Your task to perform on an android device: Go to wifi settings Image 0: 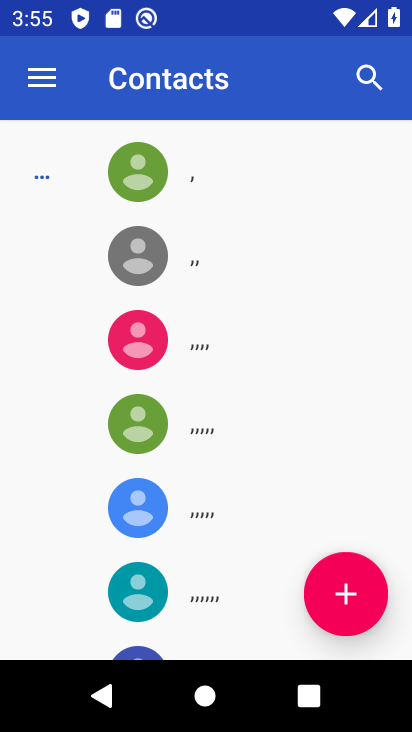
Step 0: press home button
Your task to perform on an android device: Go to wifi settings Image 1: 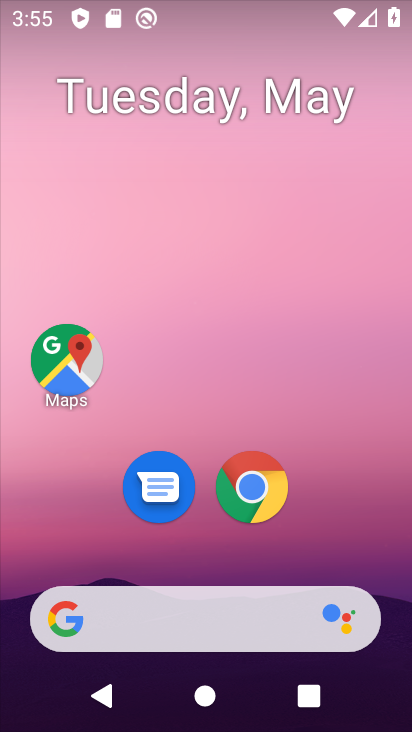
Step 1: drag from (339, 547) to (307, 38)
Your task to perform on an android device: Go to wifi settings Image 2: 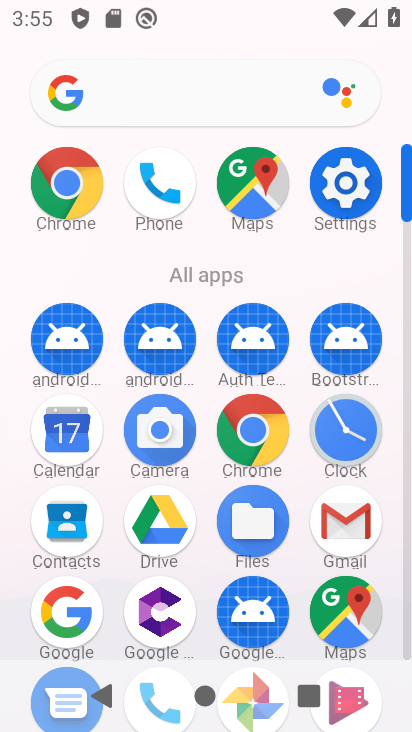
Step 2: click (335, 188)
Your task to perform on an android device: Go to wifi settings Image 3: 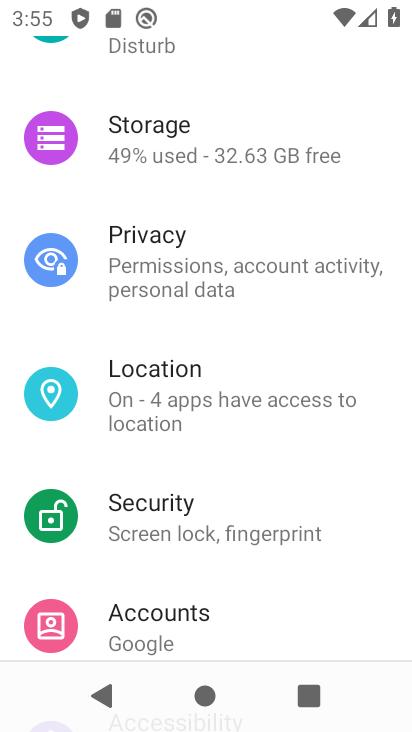
Step 3: drag from (249, 141) to (234, 521)
Your task to perform on an android device: Go to wifi settings Image 4: 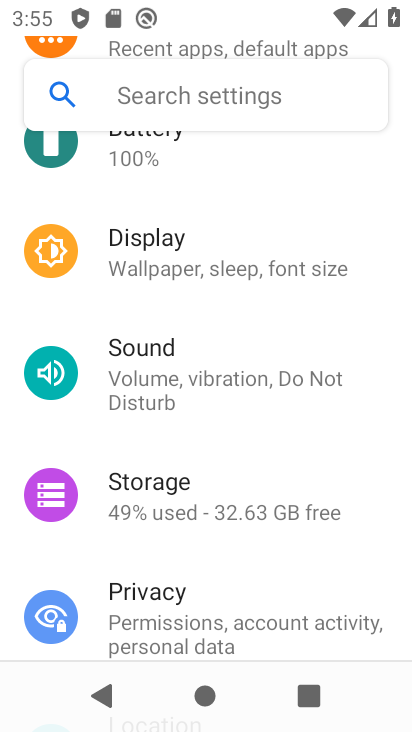
Step 4: drag from (231, 180) to (234, 569)
Your task to perform on an android device: Go to wifi settings Image 5: 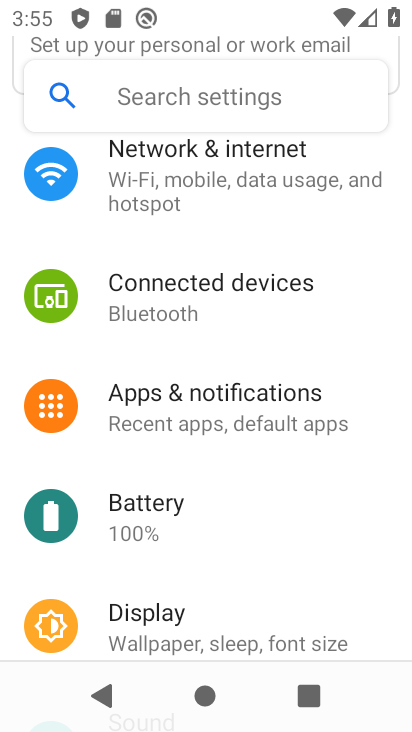
Step 5: drag from (225, 185) to (209, 512)
Your task to perform on an android device: Go to wifi settings Image 6: 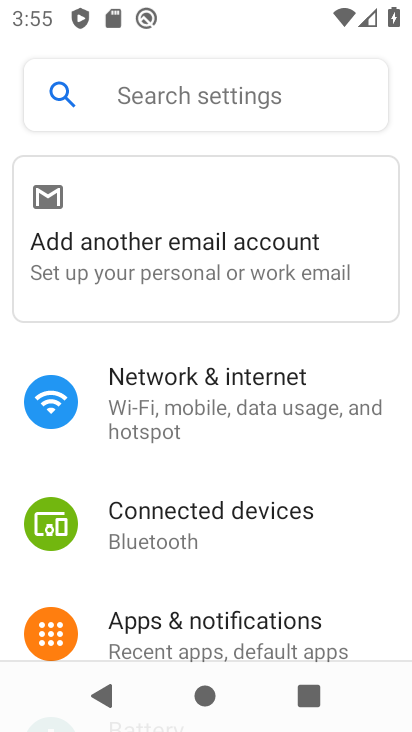
Step 6: click (206, 380)
Your task to perform on an android device: Go to wifi settings Image 7: 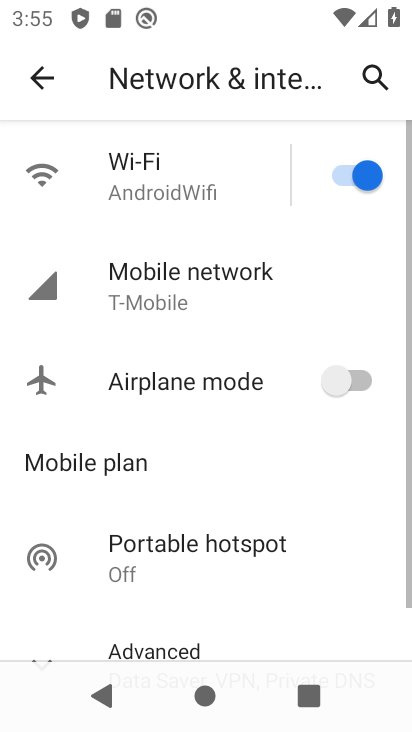
Step 7: click (189, 178)
Your task to perform on an android device: Go to wifi settings Image 8: 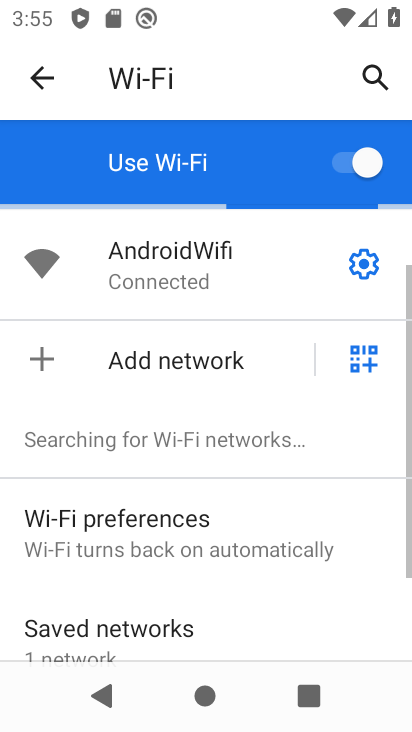
Step 8: click (354, 258)
Your task to perform on an android device: Go to wifi settings Image 9: 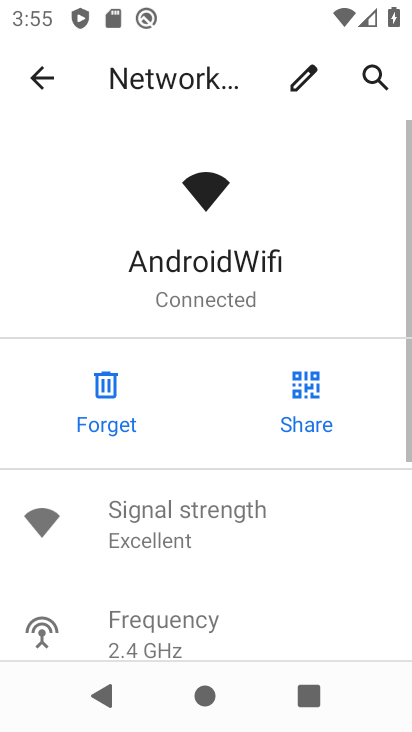
Step 9: task complete